Your task to perform on an android device: open app "AliExpress" (install if not already installed) and enter user name: "orangutan@inbox.com" and password: "Lyons" Image 0: 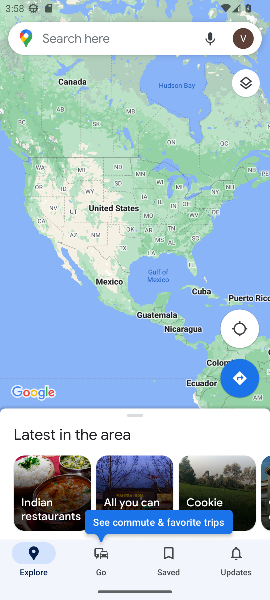
Step 0: press home button
Your task to perform on an android device: open app "AliExpress" (install if not already installed) and enter user name: "orangutan@inbox.com" and password: "Lyons" Image 1: 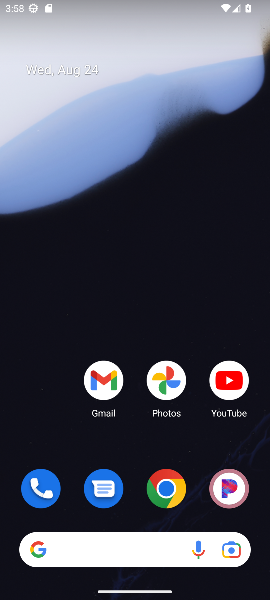
Step 1: drag from (130, 508) to (155, 34)
Your task to perform on an android device: open app "AliExpress" (install if not already installed) and enter user name: "orangutan@inbox.com" and password: "Lyons" Image 2: 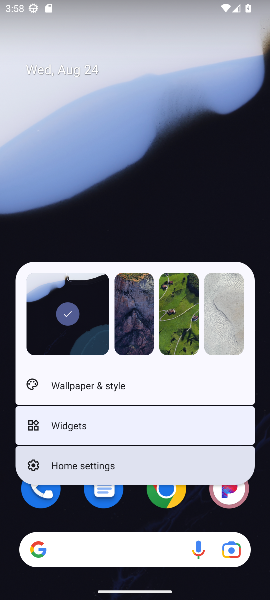
Step 2: click (114, 208)
Your task to perform on an android device: open app "AliExpress" (install if not already installed) and enter user name: "orangutan@inbox.com" and password: "Lyons" Image 3: 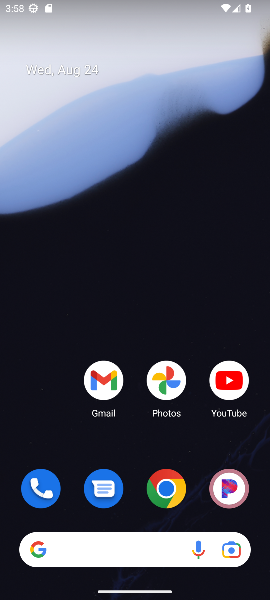
Step 3: drag from (132, 525) to (166, 81)
Your task to perform on an android device: open app "AliExpress" (install if not already installed) and enter user name: "orangutan@inbox.com" and password: "Lyons" Image 4: 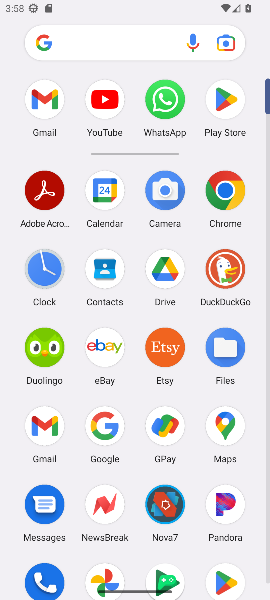
Step 4: click (224, 104)
Your task to perform on an android device: open app "AliExpress" (install if not already installed) and enter user name: "orangutan@inbox.com" and password: "Lyons" Image 5: 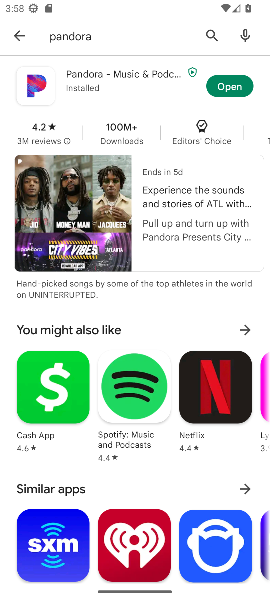
Step 5: click (212, 41)
Your task to perform on an android device: open app "AliExpress" (install if not already installed) and enter user name: "orangutan@inbox.com" and password: "Lyons" Image 6: 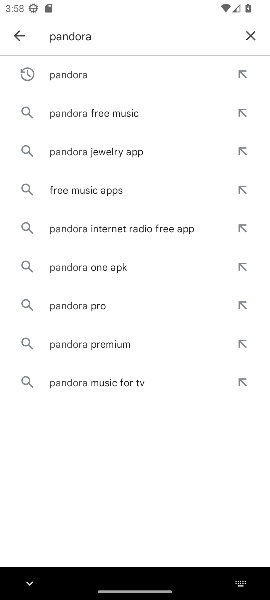
Step 6: click (240, 40)
Your task to perform on an android device: open app "AliExpress" (install if not already installed) and enter user name: "orangutan@inbox.com" and password: "Lyons" Image 7: 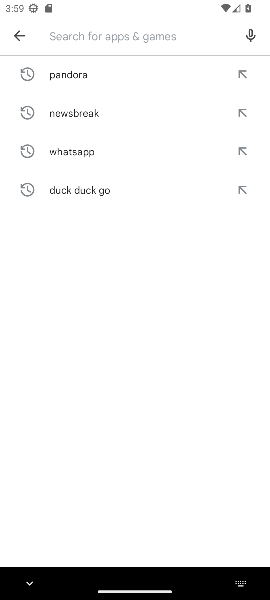
Step 7: type "aliexpress"
Your task to perform on an android device: open app "AliExpress" (install if not already installed) and enter user name: "orangutan@inbox.com" and password: "Lyons" Image 8: 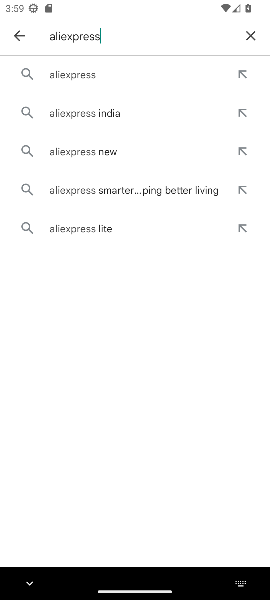
Step 8: click (122, 78)
Your task to perform on an android device: open app "AliExpress" (install if not already installed) and enter user name: "orangutan@inbox.com" and password: "Lyons" Image 9: 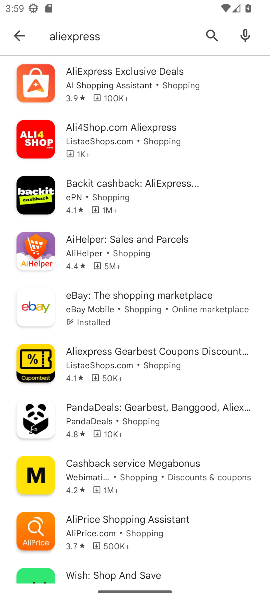
Step 9: click (141, 90)
Your task to perform on an android device: open app "AliExpress" (install if not already installed) and enter user name: "orangutan@inbox.com" and password: "Lyons" Image 10: 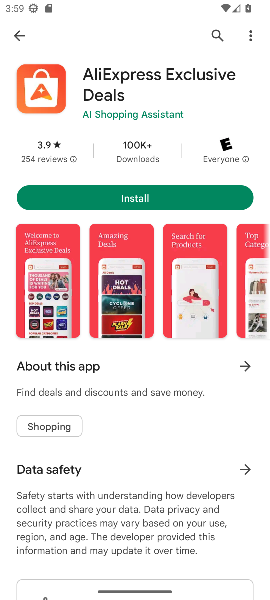
Step 10: click (142, 204)
Your task to perform on an android device: open app "AliExpress" (install if not already installed) and enter user name: "orangutan@inbox.com" and password: "Lyons" Image 11: 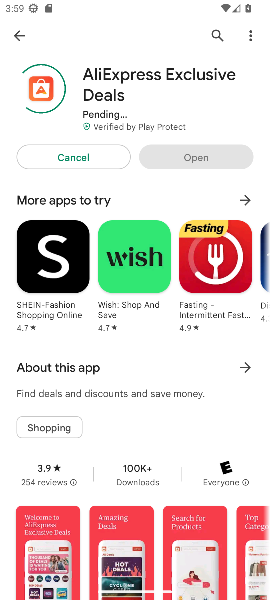
Step 11: task complete